Your task to perform on an android device: toggle pop-ups in chrome Image 0: 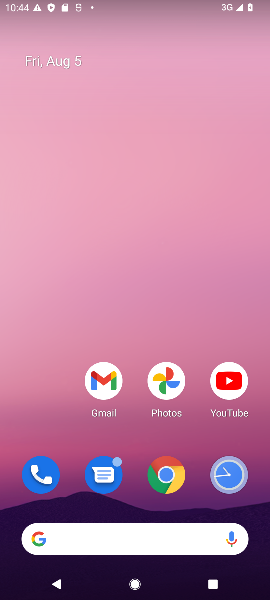
Step 0: click (166, 489)
Your task to perform on an android device: toggle pop-ups in chrome Image 1: 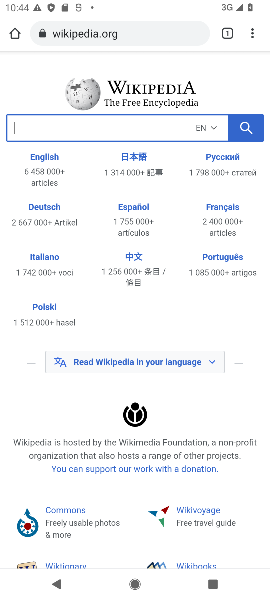
Step 1: click (249, 30)
Your task to perform on an android device: toggle pop-ups in chrome Image 2: 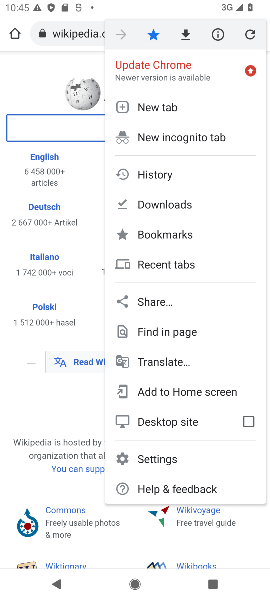
Step 2: click (161, 459)
Your task to perform on an android device: toggle pop-ups in chrome Image 3: 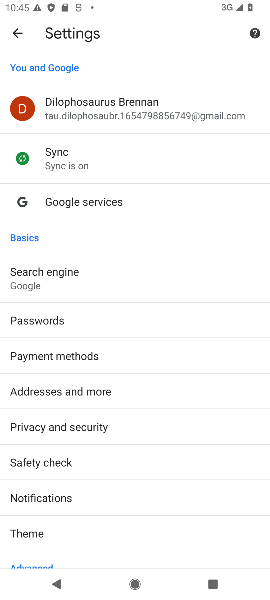
Step 3: drag from (83, 470) to (93, 250)
Your task to perform on an android device: toggle pop-ups in chrome Image 4: 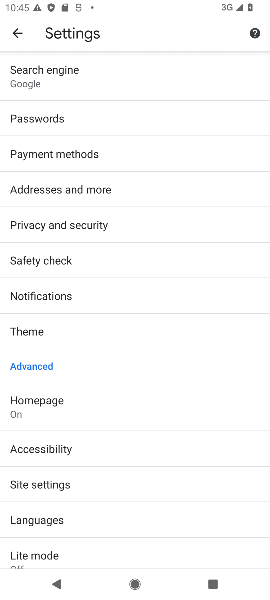
Step 4: click (75, 488)
Your task to perform on an android device: toggle pop-ups in chrome Image 5: 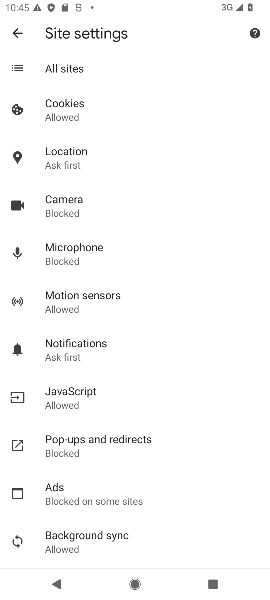
Step 5: click (85, 455)
Your task to perform on an android device: toggle pop-ups in chrome Image 6: 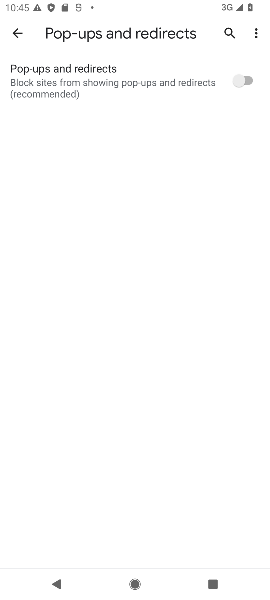
Step 6: click (250, 82)
Your task to perform on an android device: toggle pop-ups in chrome Image 7: 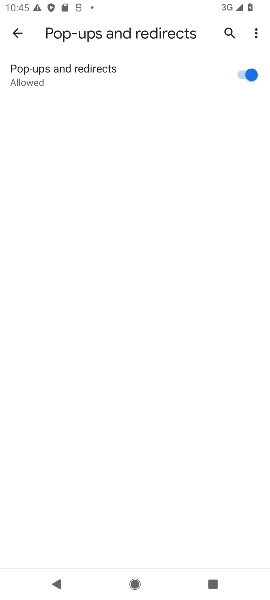
Step 7: task complete